Your task to perform on an android device: empty trash in the gmail app Image 0: 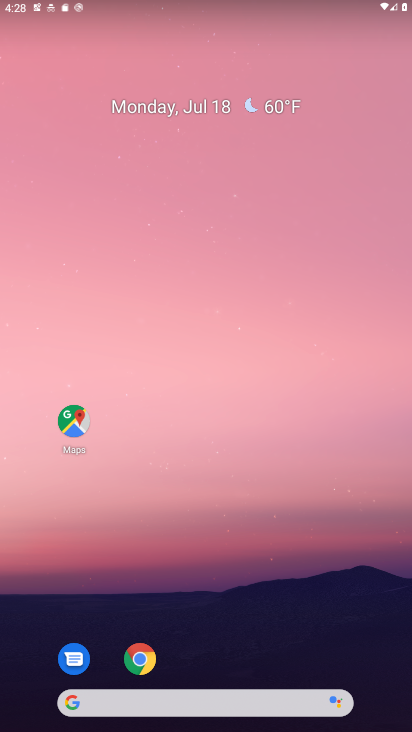
Step 0: drag from (280, 622) to (287, 4)
Your task to perform on an android device: empty trash in the gmail app Image 1: 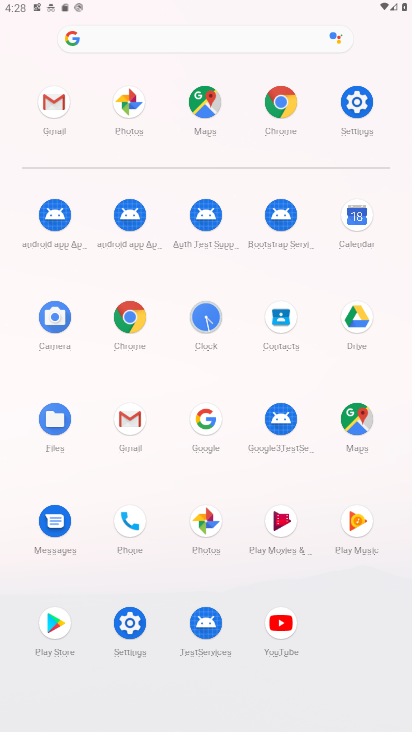
Step 1: click (124, 431)
Your task to perform on an android device: empty trash in the gmail app Image 2: 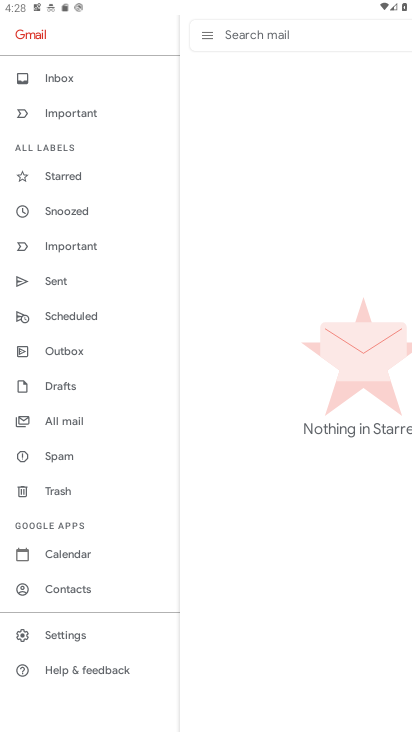
Step 2: click (76, 498)
Your task to perform on an android device: empty trash in the gmail app Image 3: 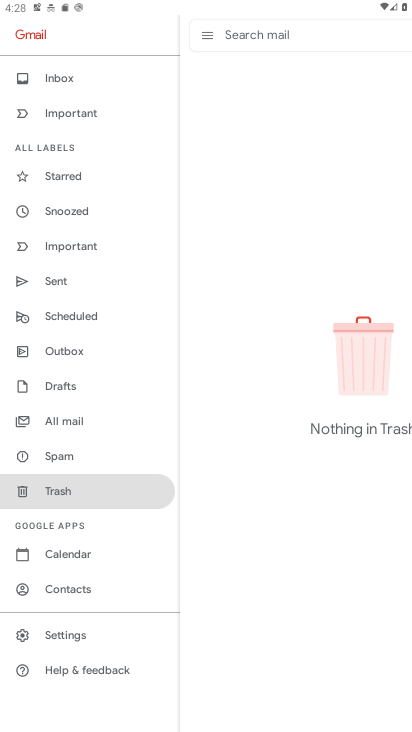
Step 3: task complete